Your task to perform on an android device: change the clock display to show seconds Image 0: 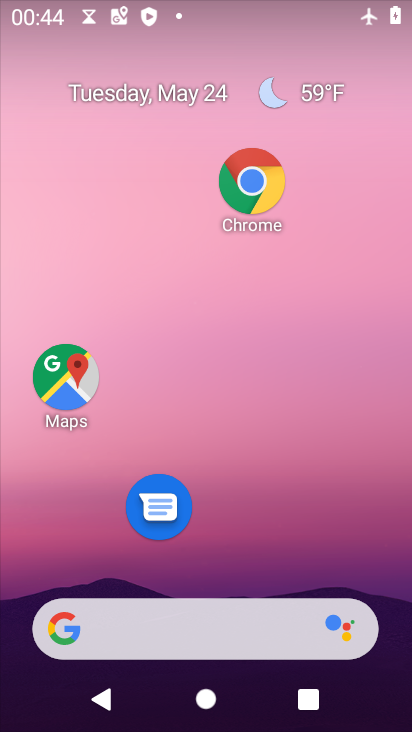
Step 0: drag from (283, 597) to (351, 297)
Your task to perform on an android device: change the clock display to show seconds Image 1: 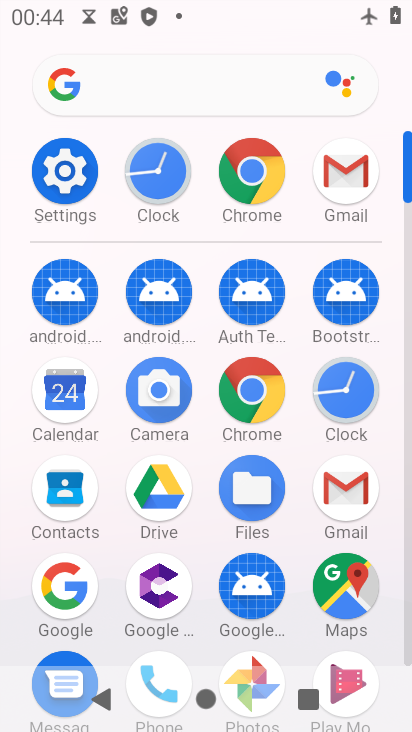
Step 1: click (341, 384)
Your task to perform on an android device: change the clock display to show seconds Image 2: 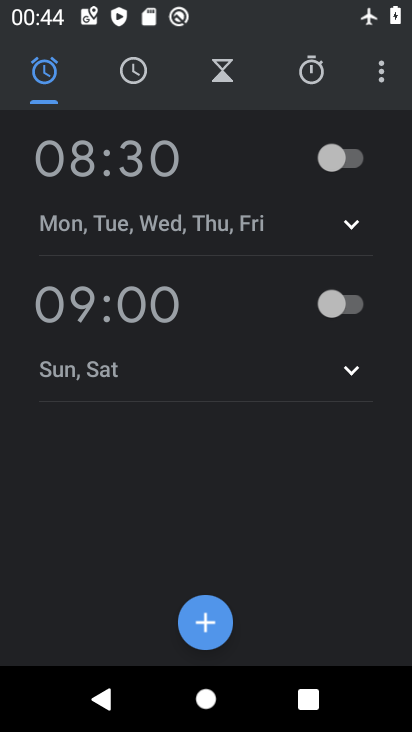
Step 2: click (398, 63)
Your task to perform on an android device: change the clock display to show seconds Image 3: 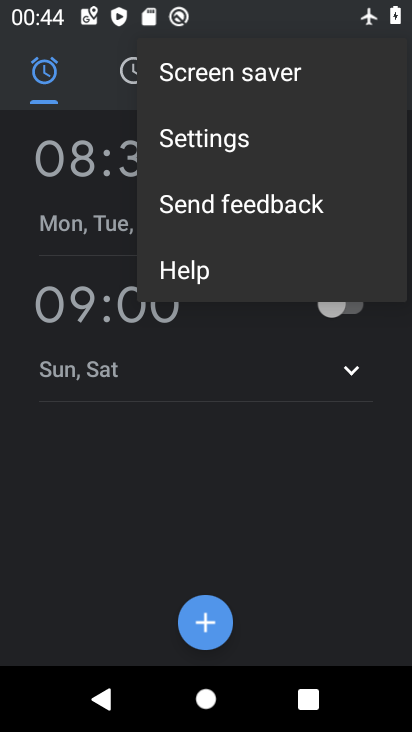
Step 3: click (208, 136)
Your task to perform on an android device: change the clock display to show seconds Image 4: 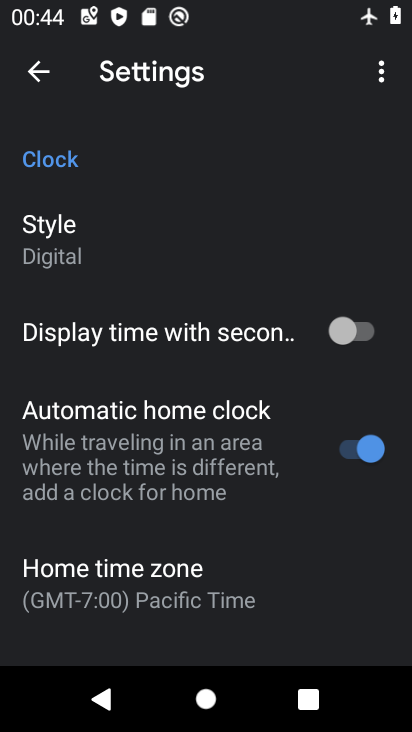
Step 4: click (84, 254)
Your task to perform on an android device: change the clock display to show seconds Image 5: 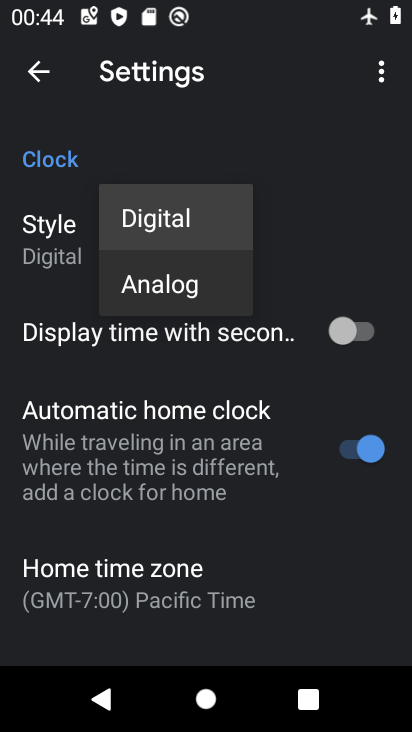
Step 5: click (140, 261)
Your task to perform on an android device: change the clock display to show seconds Image 6: 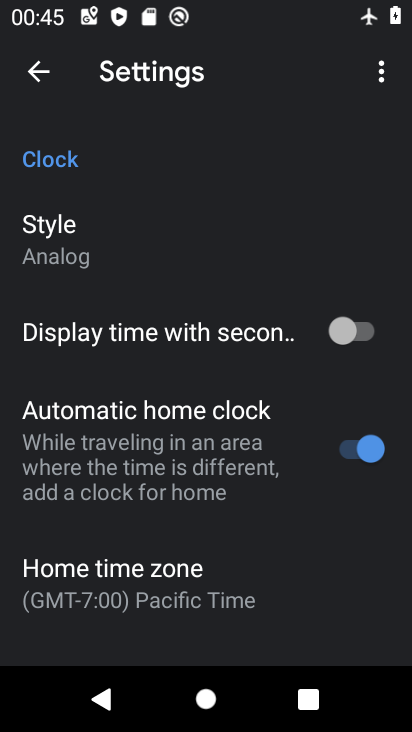
Step 6: task complete